Your task to perform on an android device: see tabs open on other devices in the chrome app Image 0: 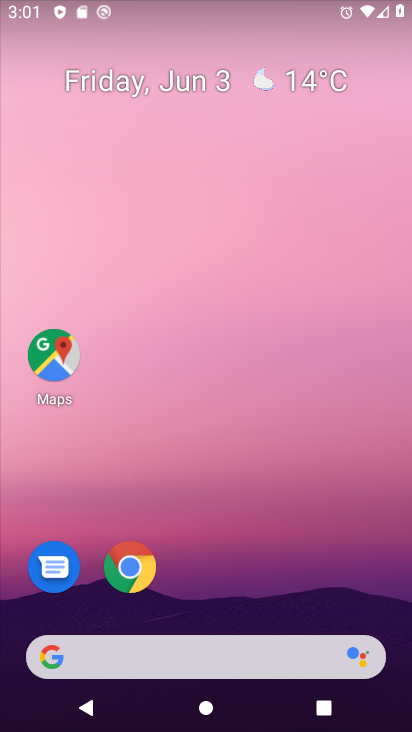
Step 0: drag from (319, 655) to (292, 93)
Your task to perform on an android device: see tabs open on other devices in the chrome app Image 1: 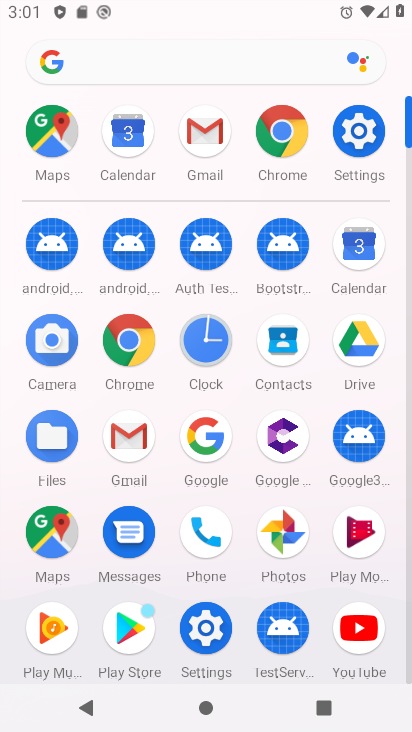
Step 1: click (146, 360)
Your task to perform on an android device: see tabs open on other devices in the chrome app Image 2: 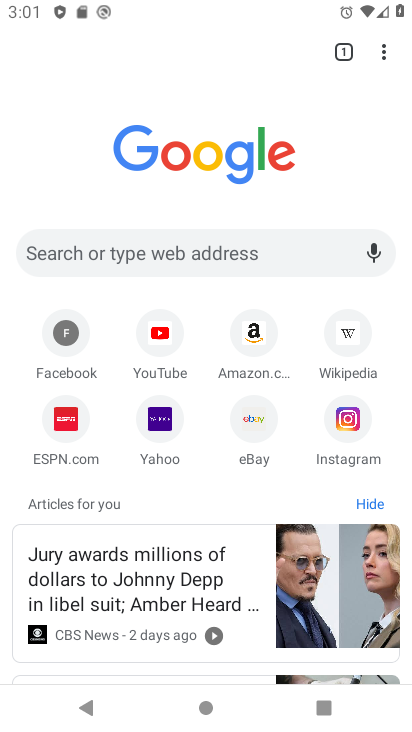
Step 2: click (352, 59)
Your task to perform on an android device: see tabs open on other devices in the chrome app Image 3: 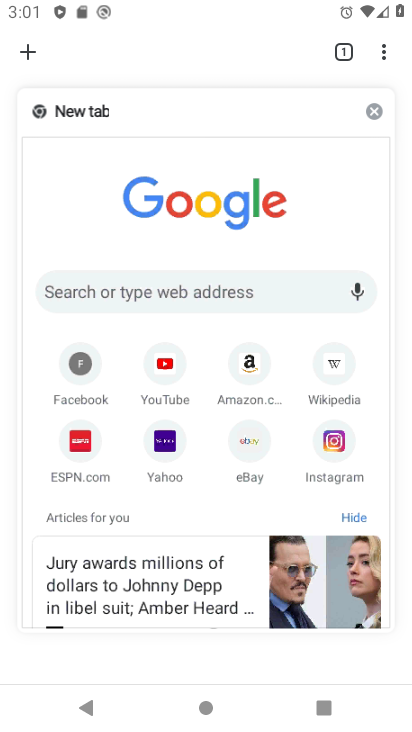
Step 3: click (26, 46)
Your task to perform on an android device: see tabs open on other devices in the chrome app Image 4: 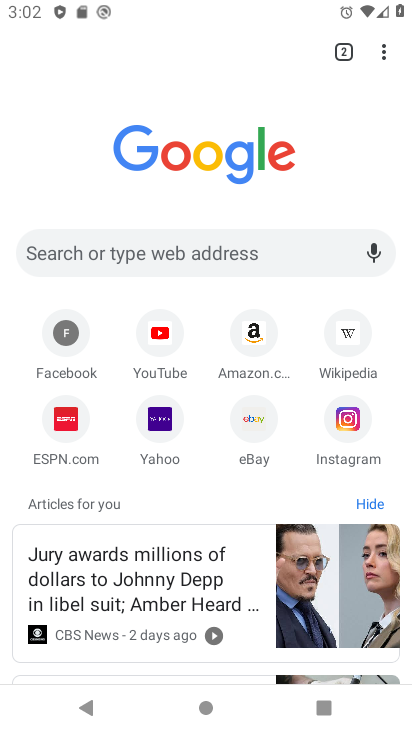
Step 4: task complete